Your task to perform on an android device: Go to Yahoo.com Image 0: 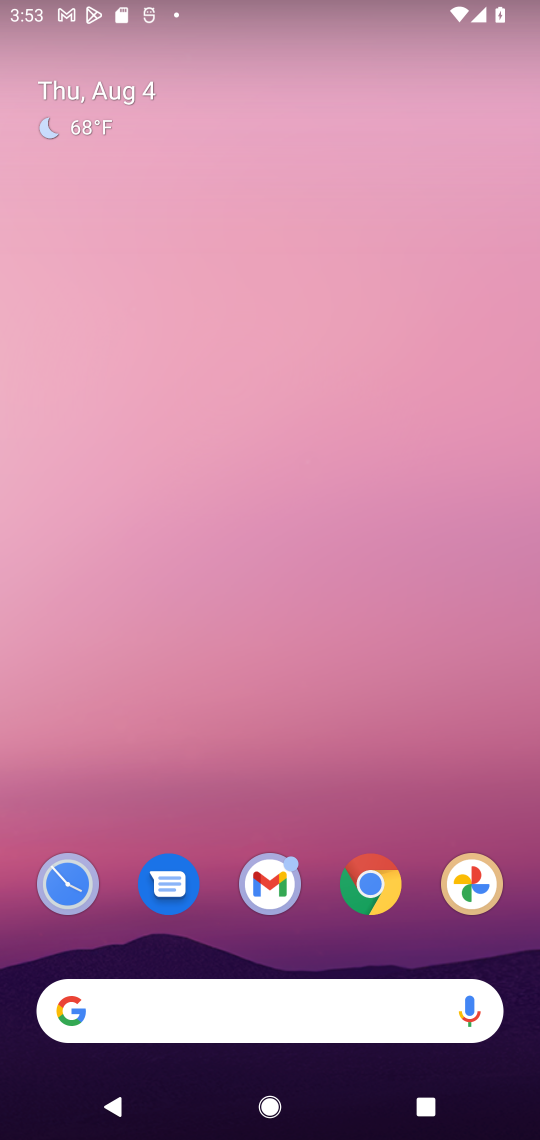
Step 0: drag from (321, 966) to (374, 187)
Your task to perform on an android device: Go to Yahoo.com Image 1: 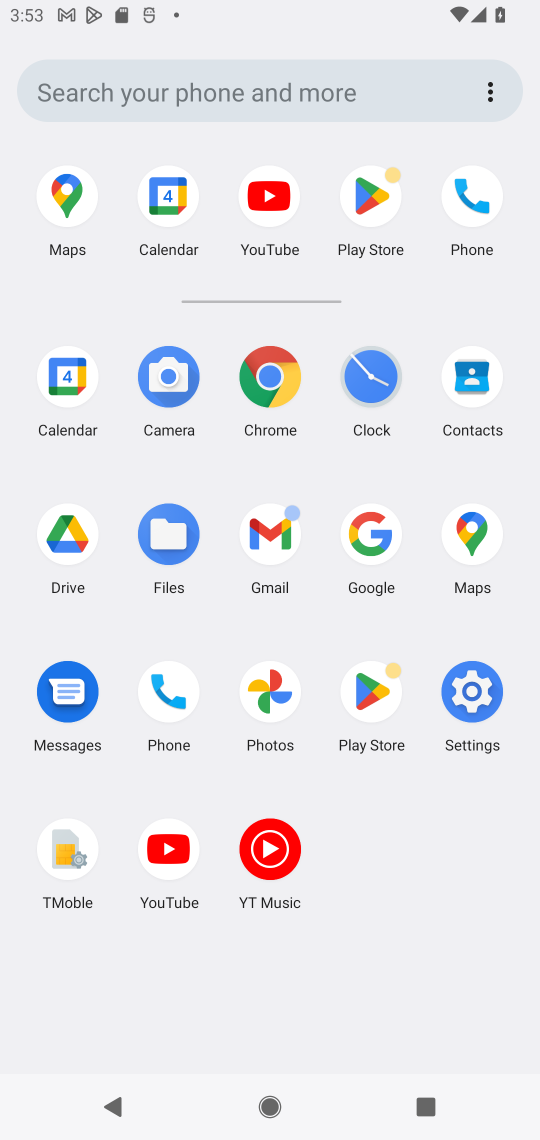
Step 1: click (360, 85)
Your task to perform on an android device: Go to Yahoo.com Image 2: 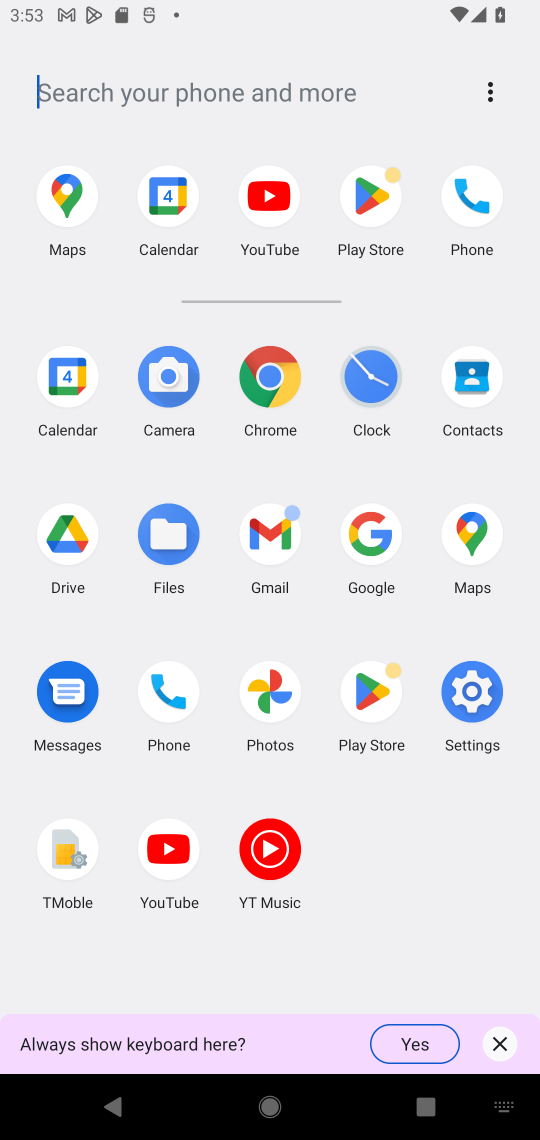
Step 2: type "yahoo.com"
Your task to perform on an android device: Go to Yahoo.com Image 3: 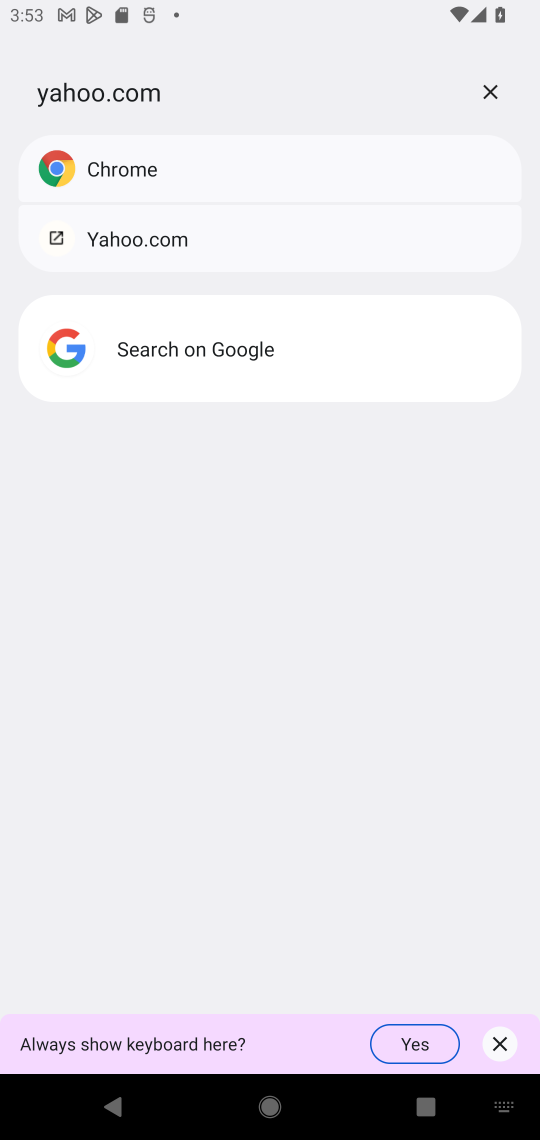
Step 3: click (227, 167)
Your task to perform on an android device: Go to Yahoo.com Image 4: 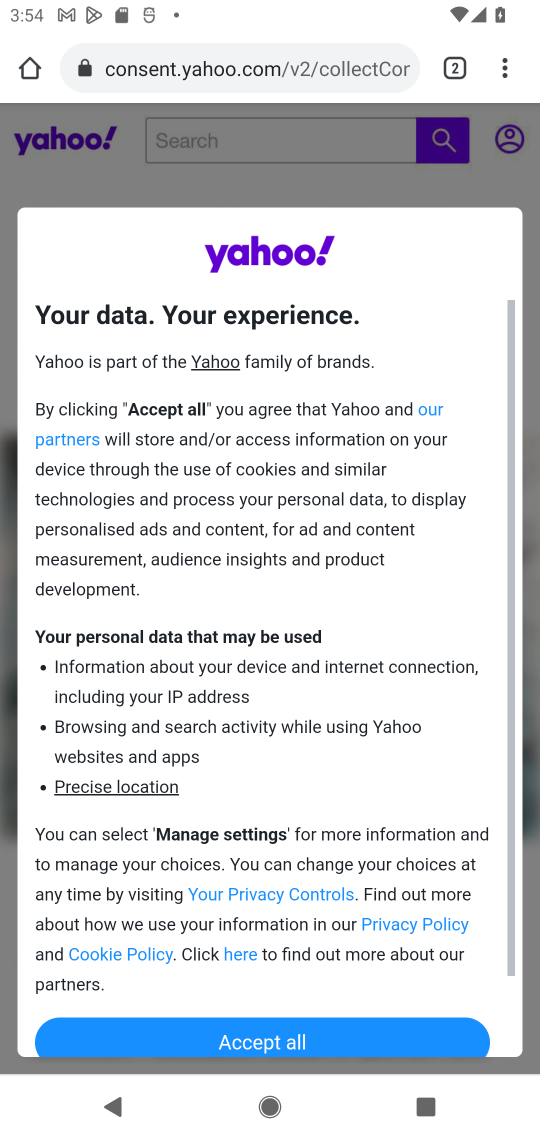
Step 4: task complete